Your task to perform on an android device: change the clock style Image 0: 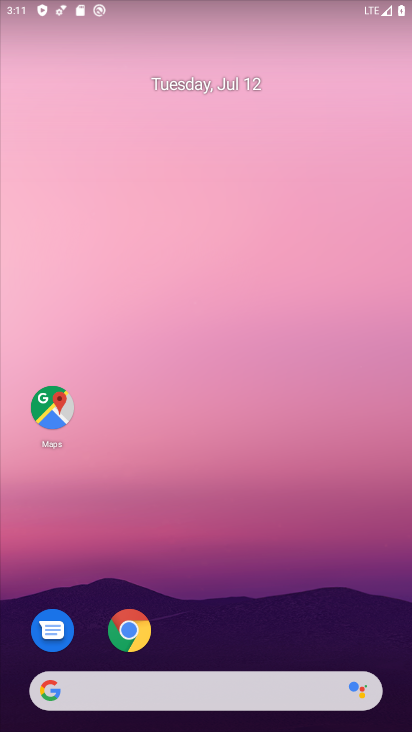
Step 0: drag from (230, 427) to (288, 25)
Your task to perform on an android device: change the clock style Image 1: 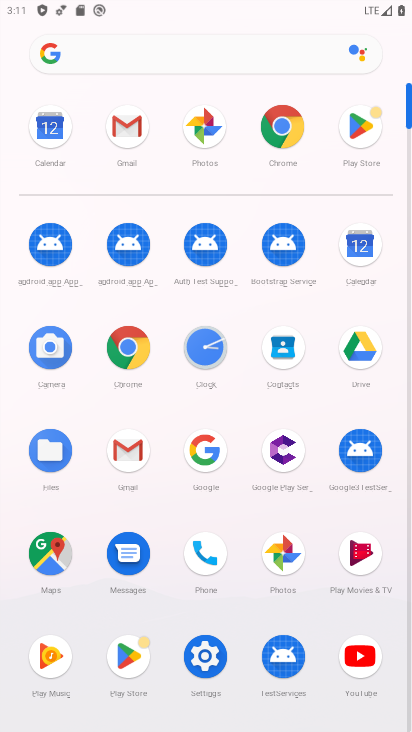
Step 1: click (216, 363)
Your task to perform on an android device: change the clock style Image 2: 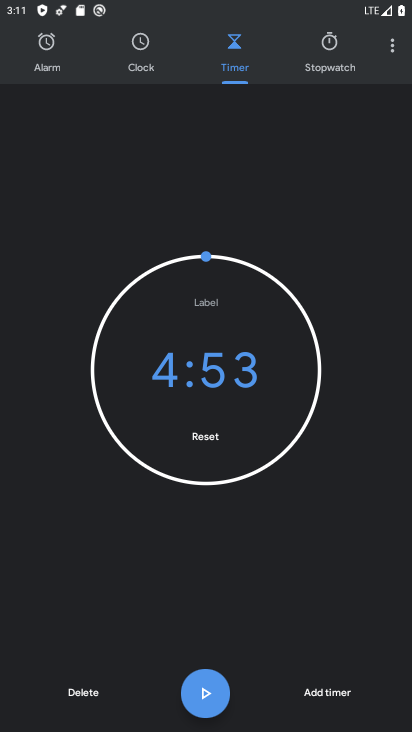
Step 2: click (392, 53)
Your task to perform on an android device: change the clock style Image 3: 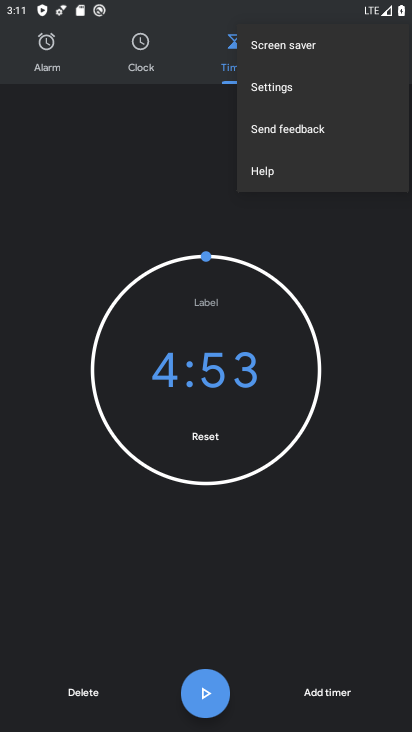
Step 3: click (277, 89)
Your task to perform on an android device: change the clock style Image 4: 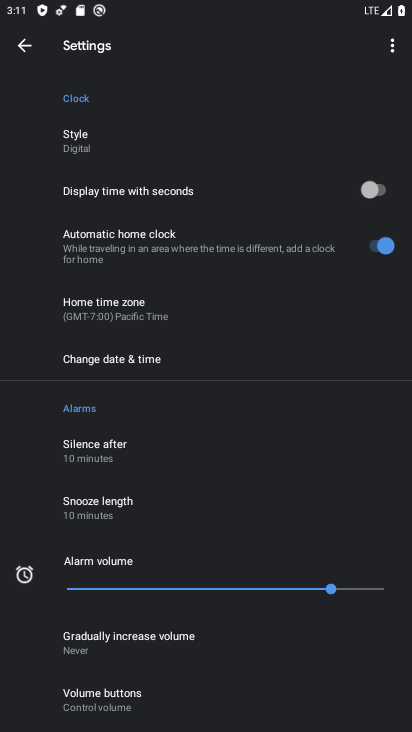
Step 4: click (82, 144)
Your task to perform on an android device: change the clock style Image 5: 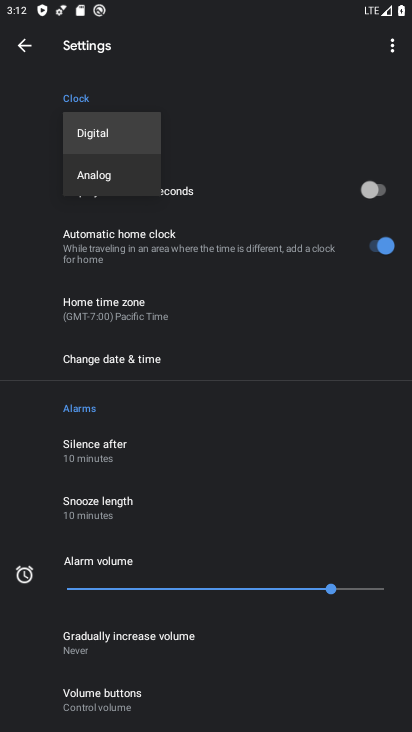
Step 5: click (116, 183)
Your task to perform on an android device: change the clock style Image 6: 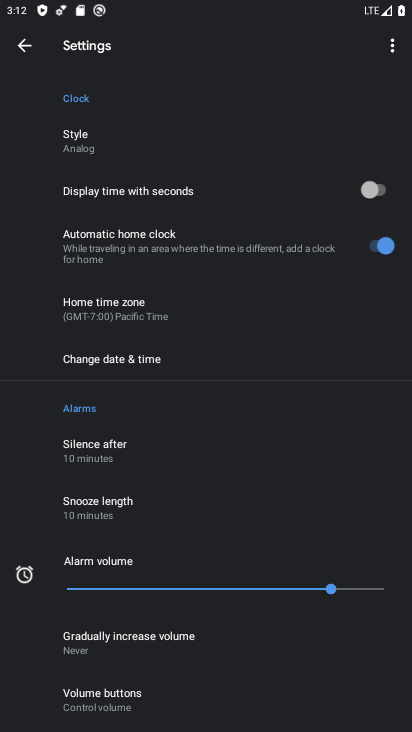
Step 6: task complete